Your task to perform on an android device: add a label to a message in the gmail app Image 0: 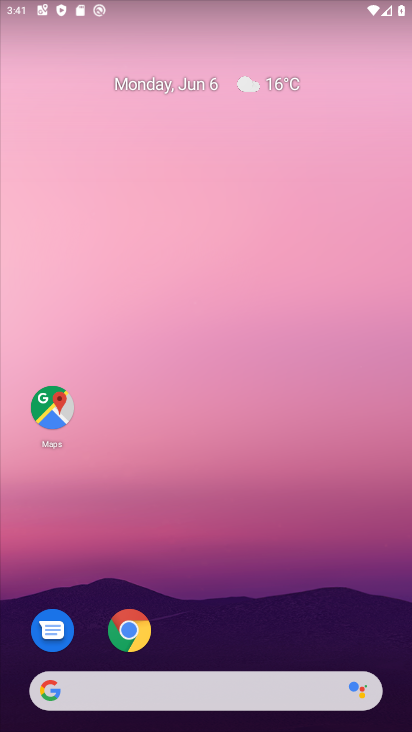
Step 0: drag from (200, 654) to (278, 15)
Your task to perform on an android device: add a label to a message in the gmail app Image 1: 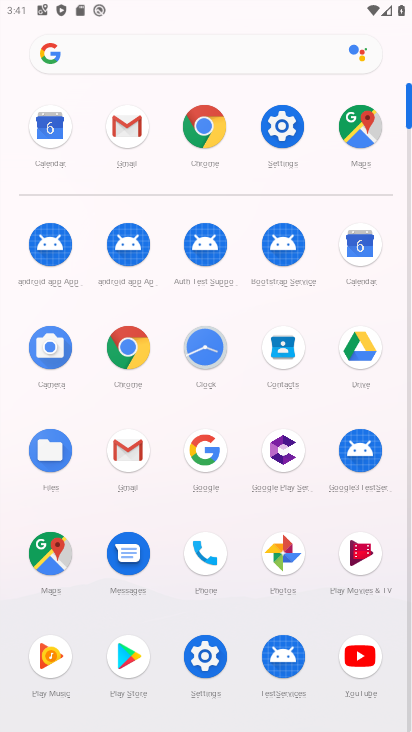
Step 1: click (123, 123)
Your task to perform on an android device: add a label to a message in the gmail app Image 2: 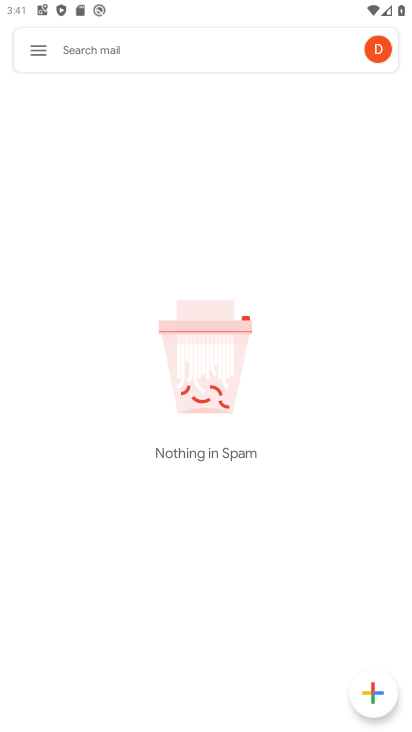
Step 2: click (43, 44)
Your task to perform on an android device: add a label to a message in the gmail app Image 3: 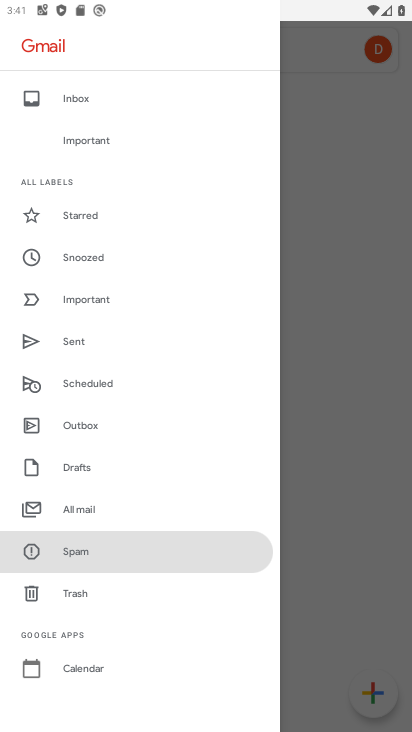
Step 3: click (83, 499)
Your task to perform on an android device: add a label to a message in the gmail app Image 4: 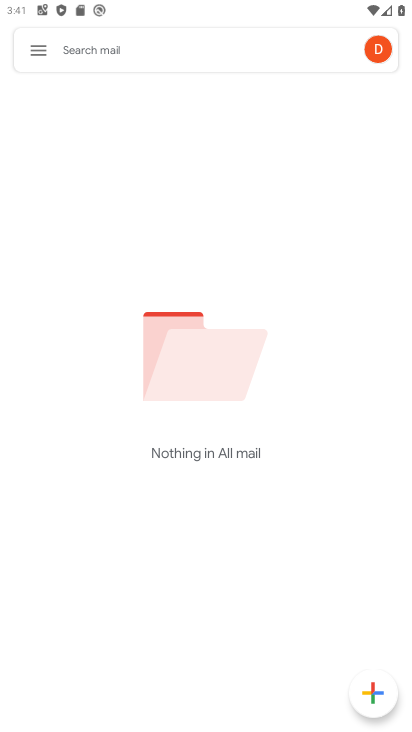
Step 4: task complete